Your task to perform on an android device: turn on data saver in the chrome app Image 0: 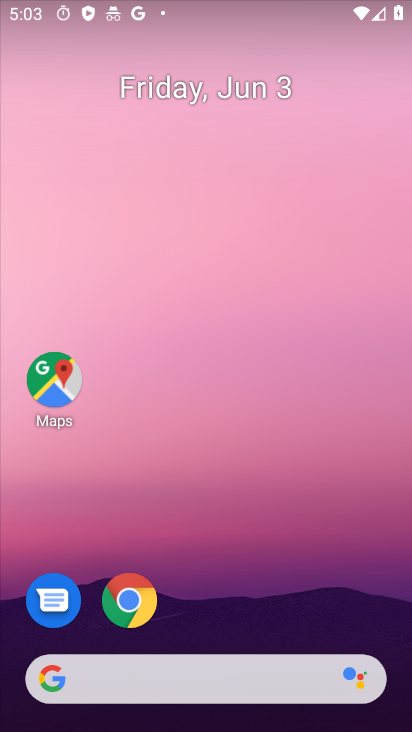
Step 0: click (133, 597)
Your task to perform on an android device: turn on data saver in the chrome app Image 1: 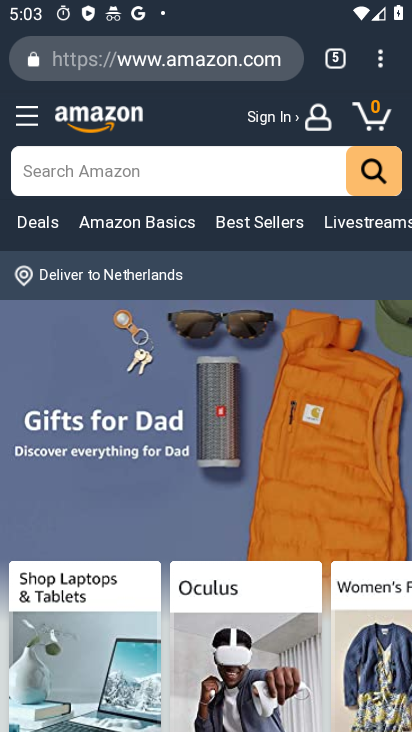
Step 1: click (377, 69)
Your task to perform on an android device: turn on data saver in the chrome app Image 2: 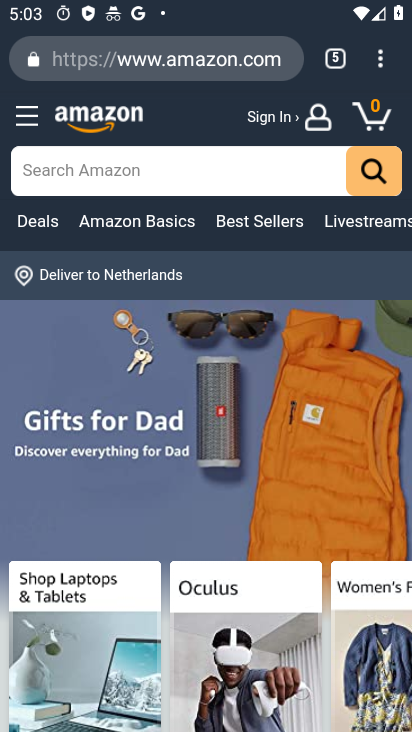
Step 2: click (377, 54)
Your task to perform on an android device: turn on data saver in the chrome app Image 3: 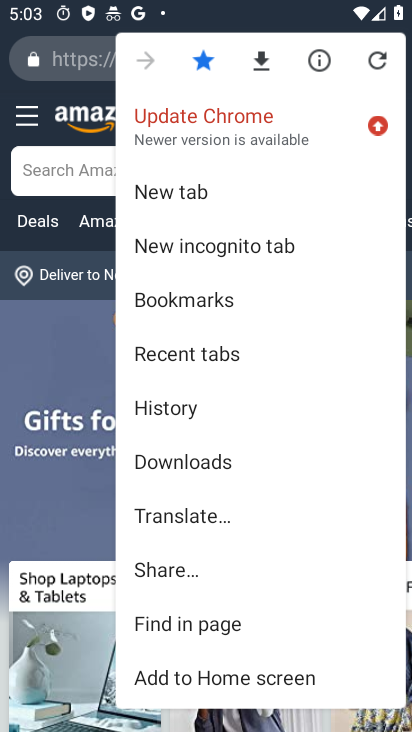
Step 3: drag from (282, 616) to (245, 241)
Your task to perform on an android device: turn on data saver in the chrome app Image 4: 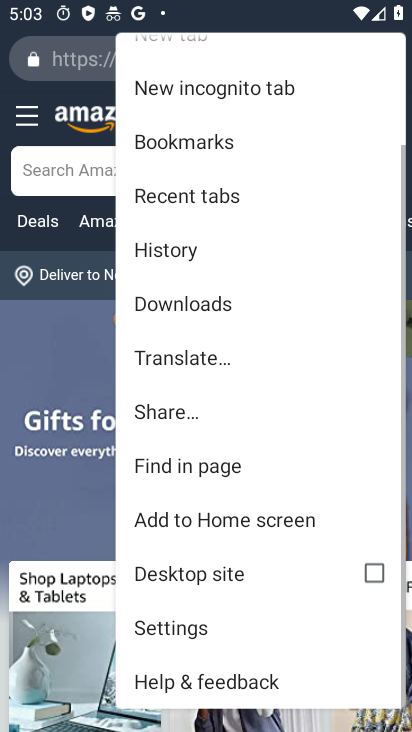
Step 4: click (182, 626)
Your task to perform on an android device: turn on data saver in the chrome app Image 5: 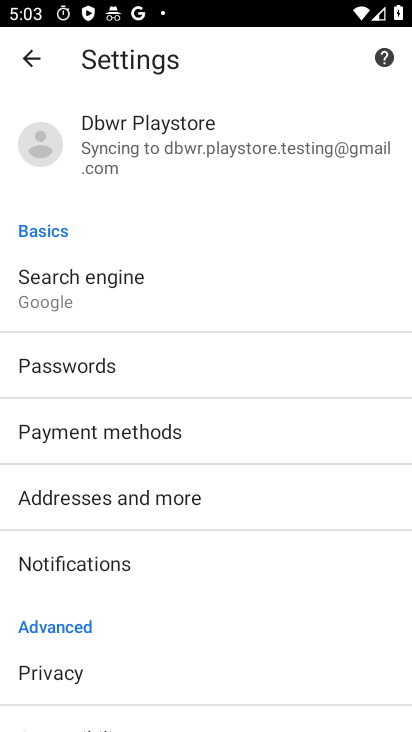
Step 5: drag from (202, 563) to (193, 315)
Your task to perform on an android device: turn on data saver in the chrome app Image 6: 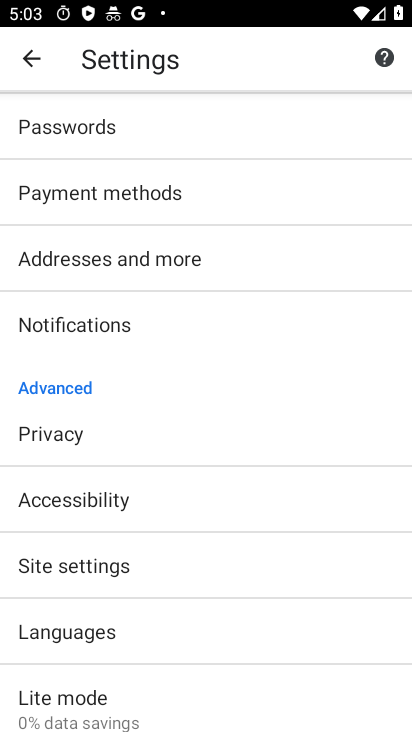
Step 6: drag from (143, 683) to (156, 400)
Your task to perform on an android device: turn on data saver in the chrome app Image 7: 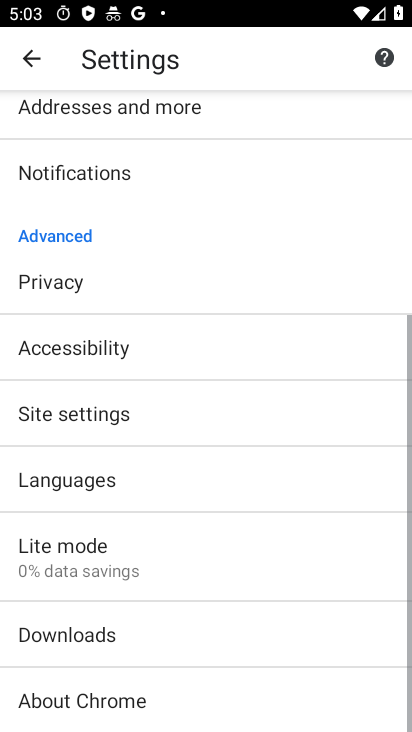
Step 7: click (63, 565)
Your task to perform on an android device: turn on data saver in the chrome app Image 8: 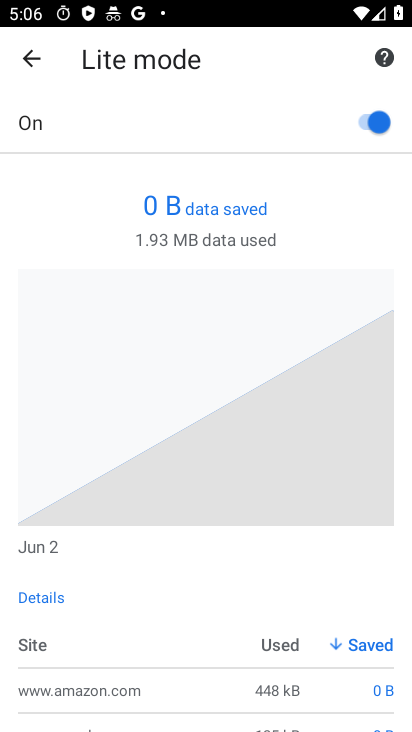
Step 8: task complete